Your task to perform on an android device: Go to display settings Image 0: 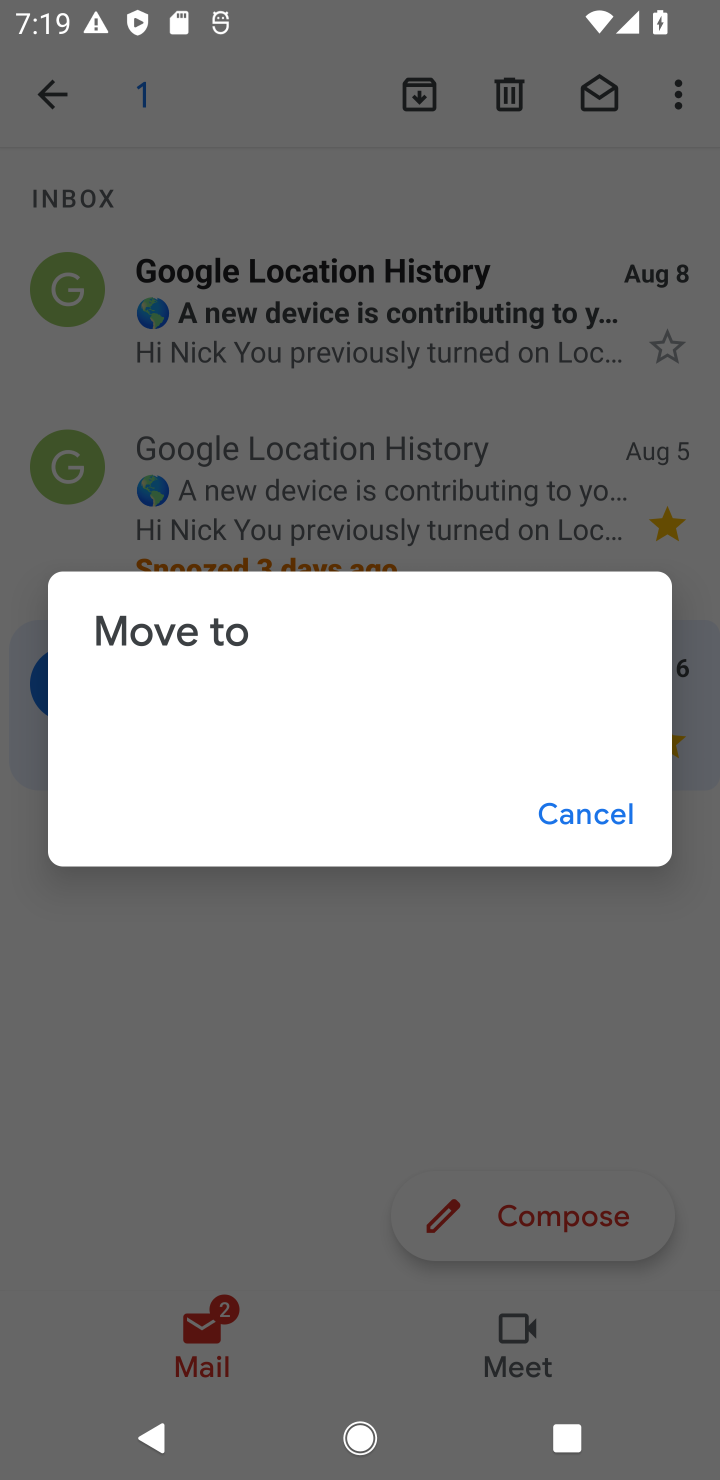
Step 0: press home button
Your task to perform on an android device: Go to display settings Image 1: 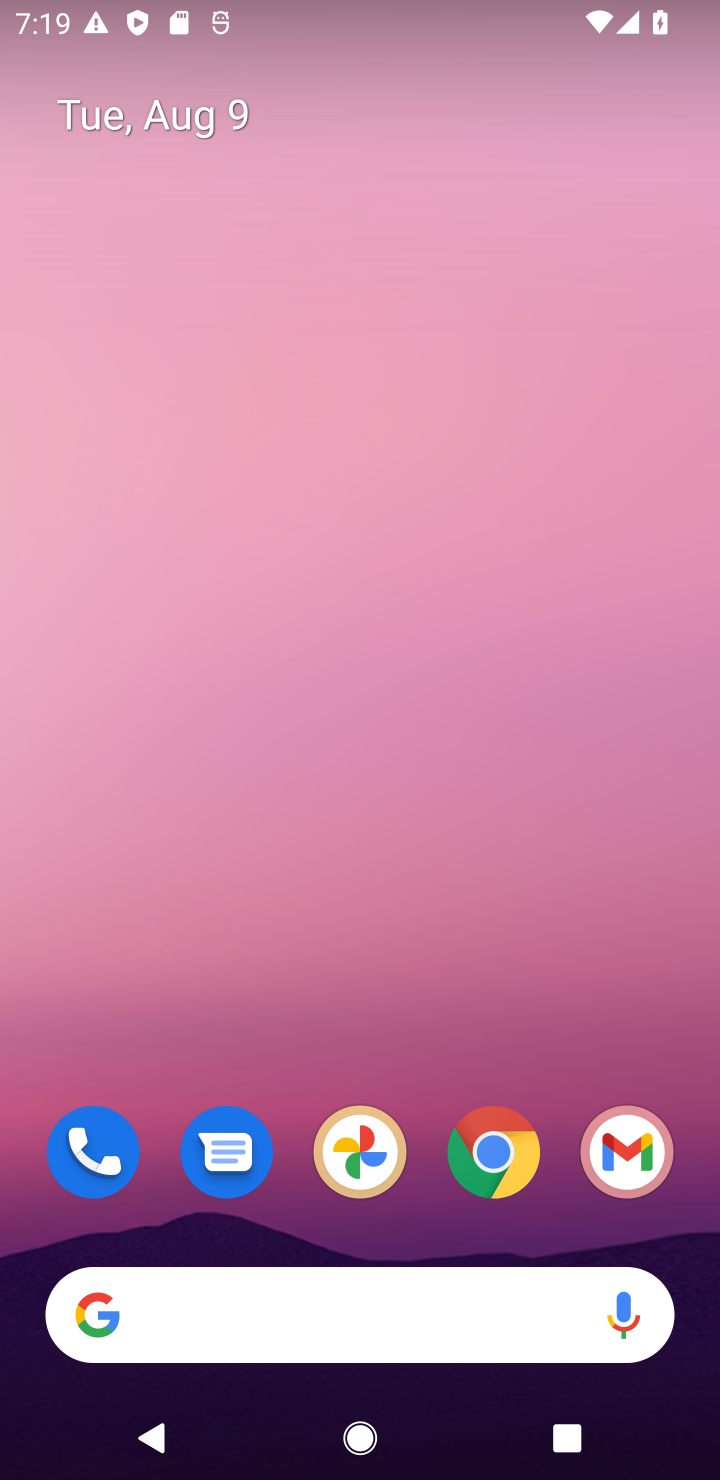
Step 1: drag from (314, 1032) to (313, 559)
Your task to perform on an android device: Go to display settings Image 2: 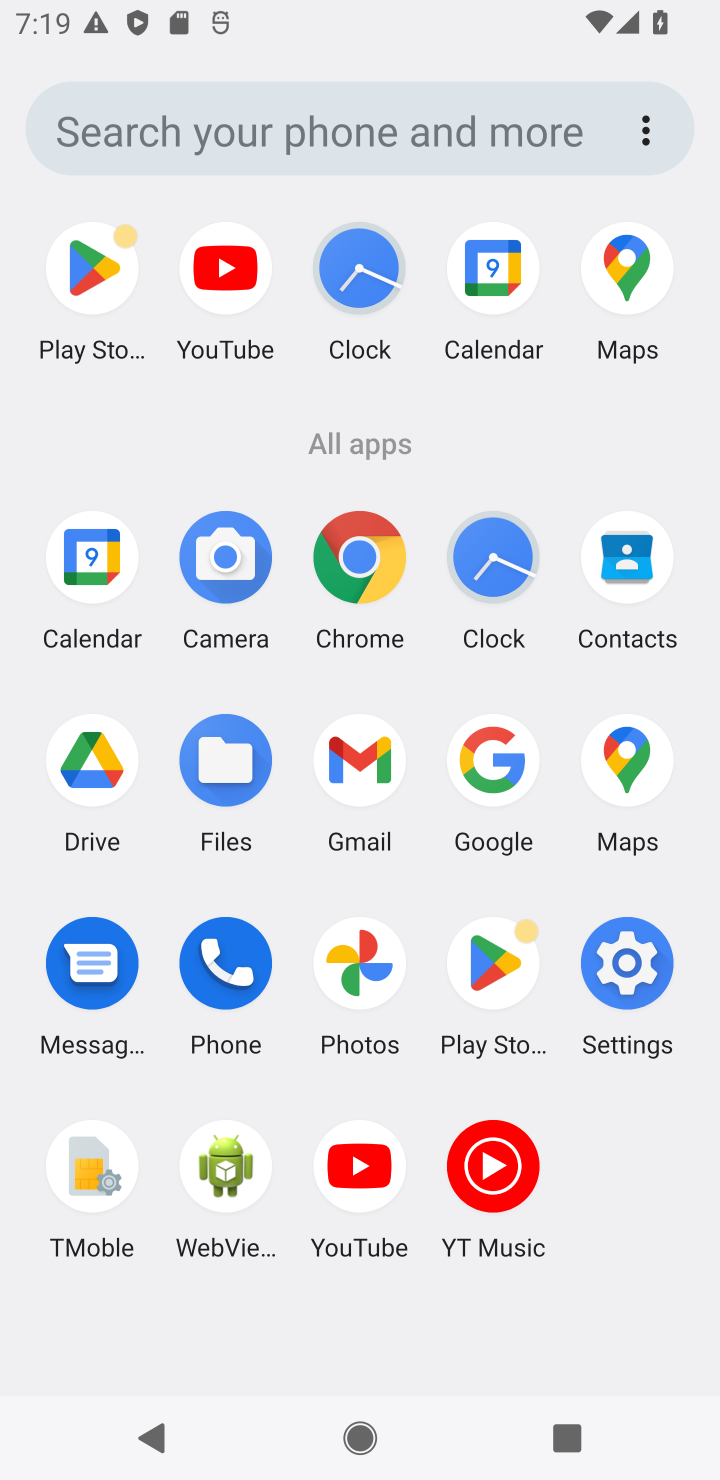
Step 2: click (596, 962)
Your task to perform on an android device: Go to display settings Image 3: 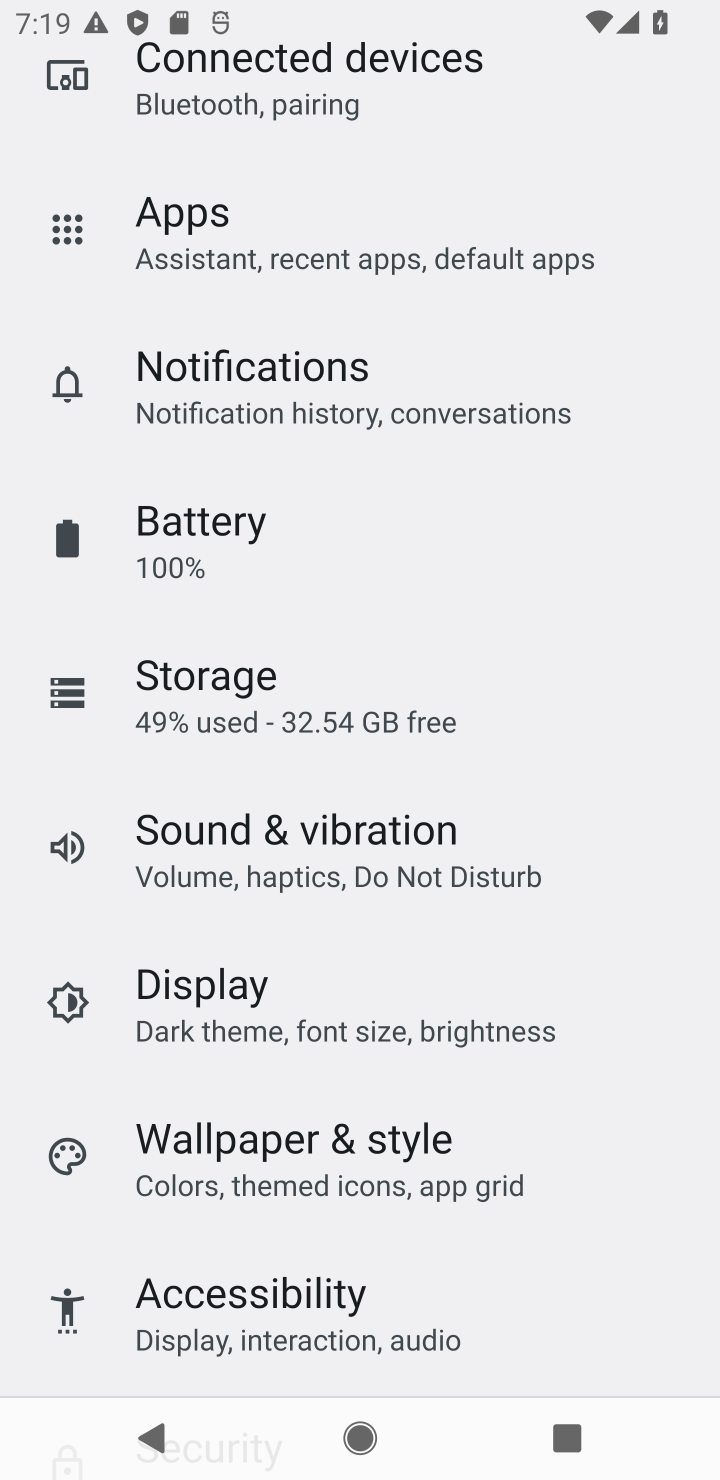
Step 3: click (269, 968)
Your task to perform on an android device: Go to display settings Image 4: 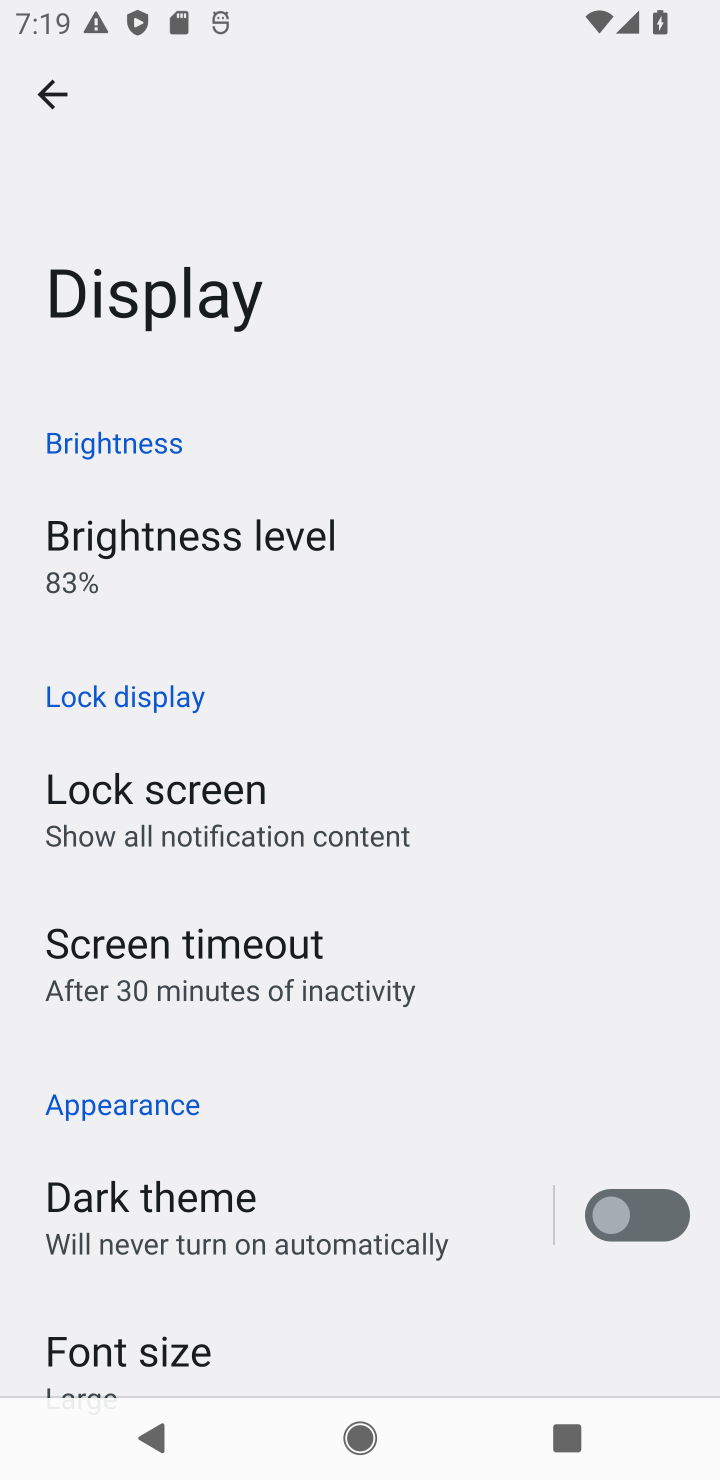
Step 4: task complete